Your task to perform on an android device: empty trash in google photos Image 0: 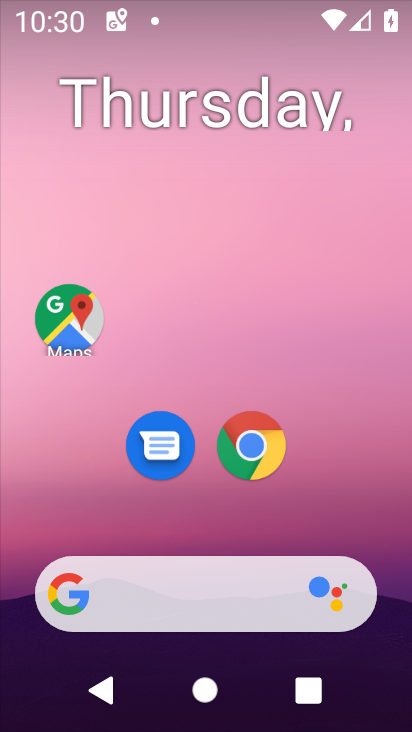
Step 0: drag from (401, 605) to (284, 54)
Your task to perform on an android device: empty trash in google photos Image 1: 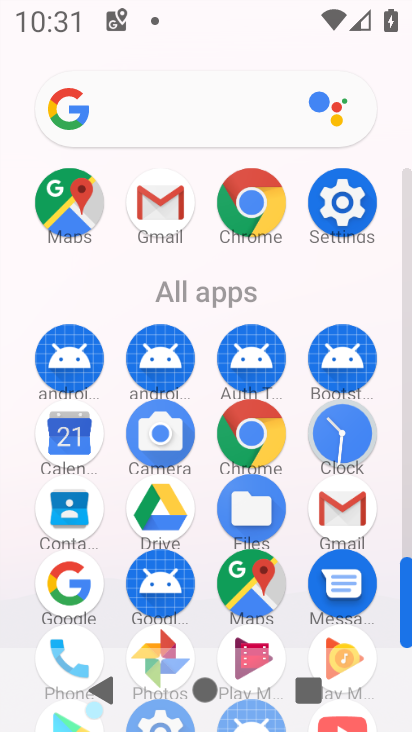
Step 1: click (164, 633)
Your task to perform on an android device: empty trash in google photos Image 2: 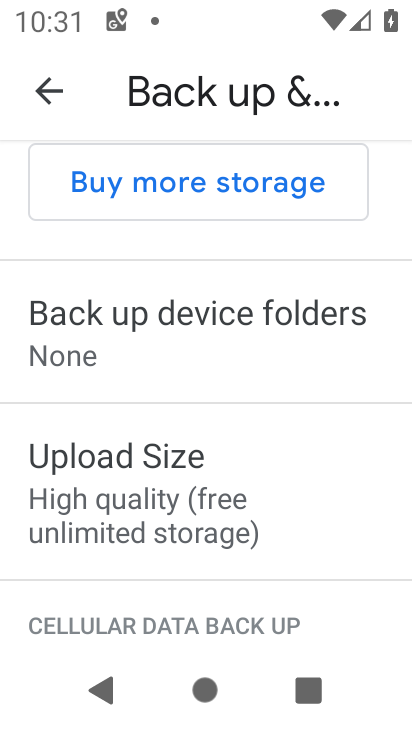
Step 2: click (36, 90)
Your task to perform on an android device: empty trash in google photos Image 3: 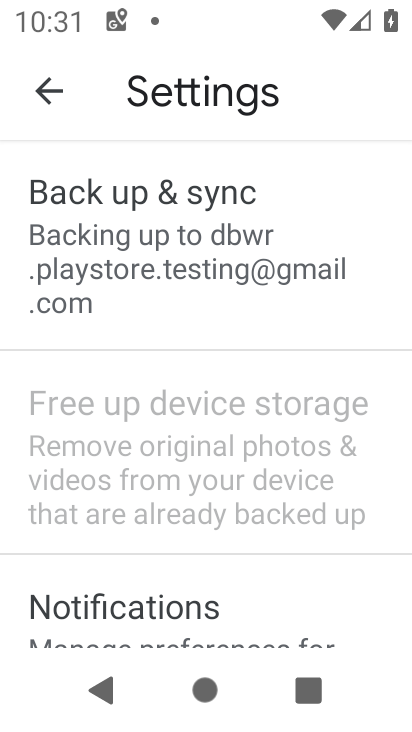
Step 3: press back button
Your task to perform on an android device: empty trash in google photos Image 4: 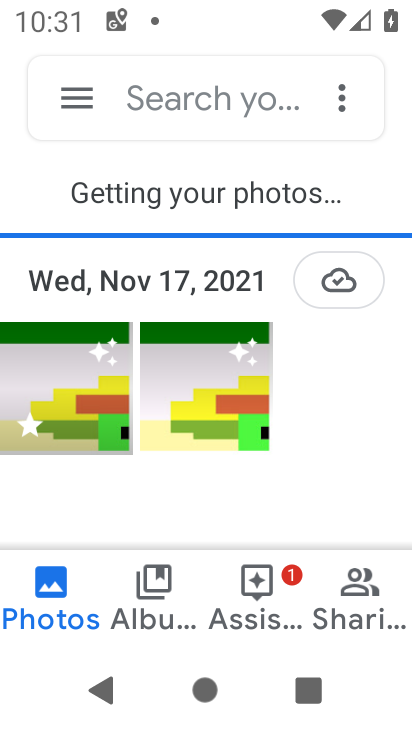
Step 4: click (76, 114)
Your task to perform on an android device: empty trash in google photos Image 5: 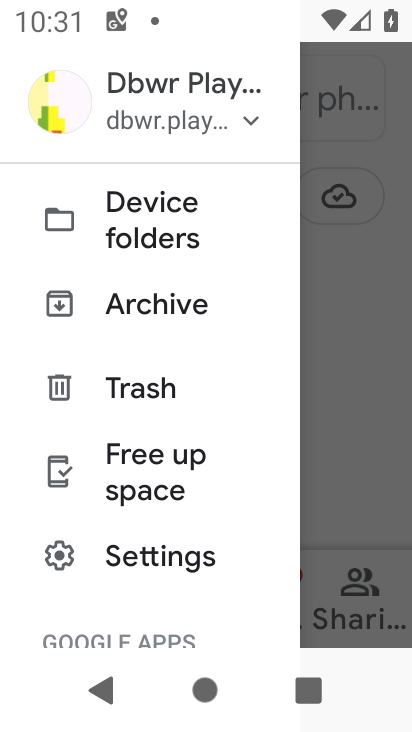
Step 5: click (150, 371)
Your task to perform on an android device: empty trash in google photos Image 6: 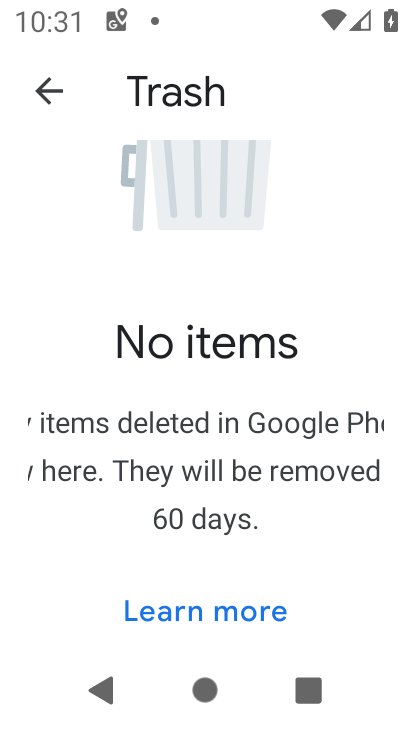
Step 6: task complete